Your task to perform on an android device: Open the stopwatch Image 0: 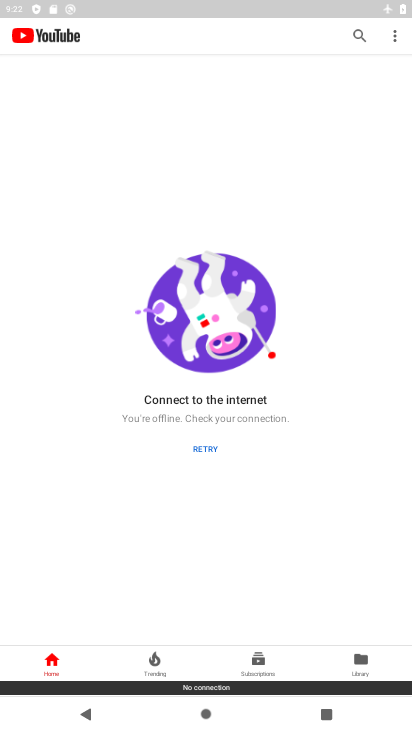
Step 0: press home button
Your task to perform on an android device: Open the stopwatch Image 1: 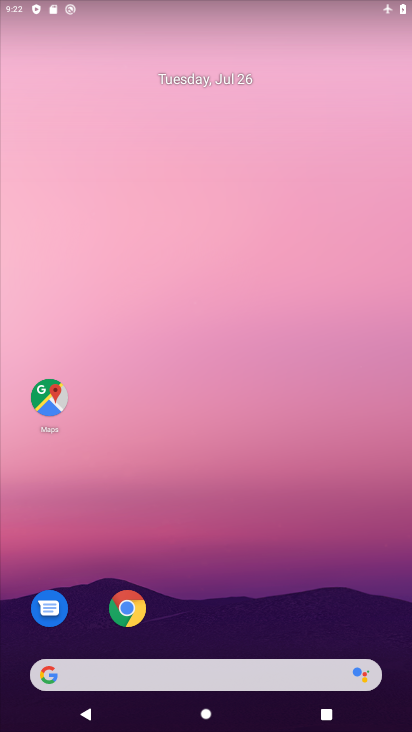
Step 1: drag from (234, 605) to (236, 155)
Your task to perform on an android device: Open the stopwatch Image 2: 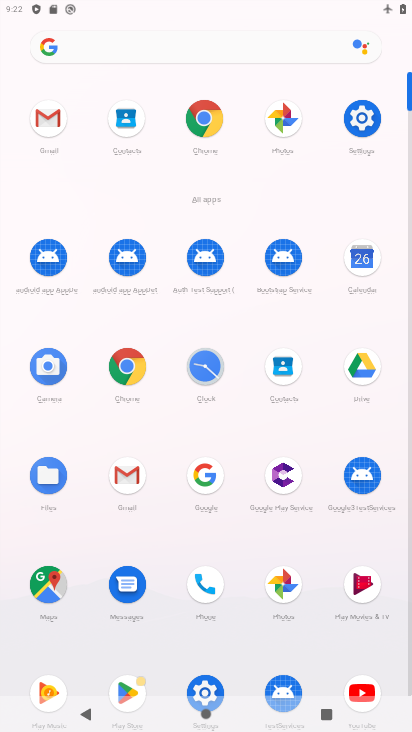
Step 2: click (212, 374)
Your task to perform on an android device: Open the stopwatch Image 3: 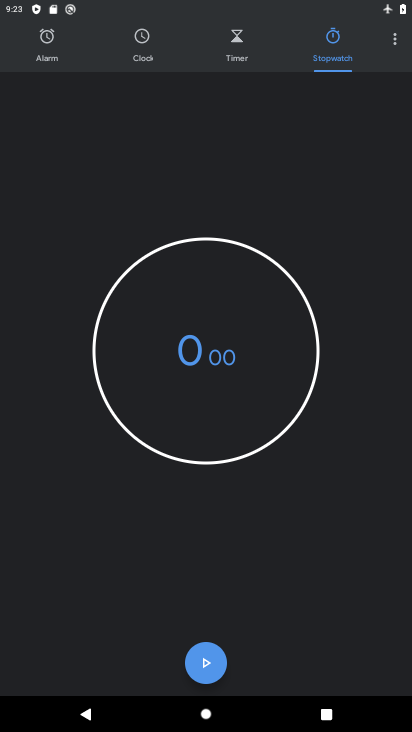
Step 3: task complete